Your task to perform on an android device: turn smart compose on in the gmail app Image 0: 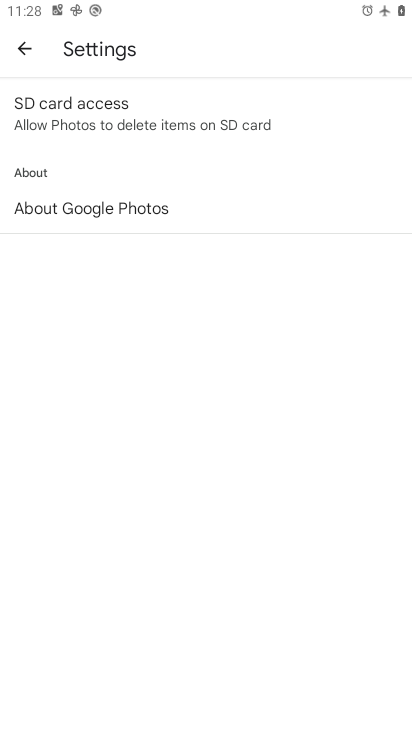
Step 0: press home button
Your task to perform on an android device: turn smart compose on in the gmail app Image 1: 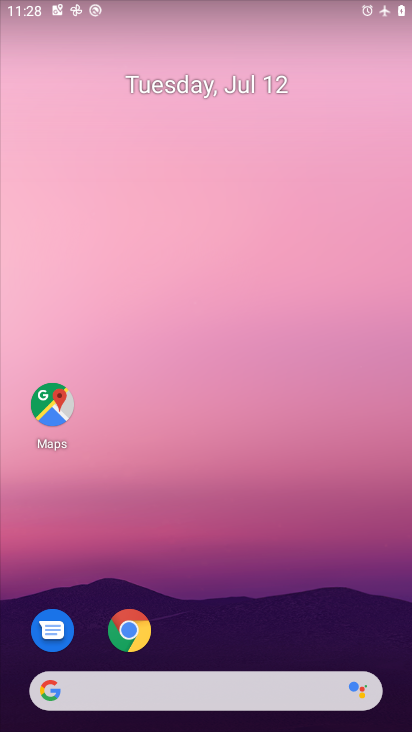
Step 1: drag from (281, 611) to (269, 131)
Your task to perform on an android device: turn smart compose on in the gmail app Image 2: 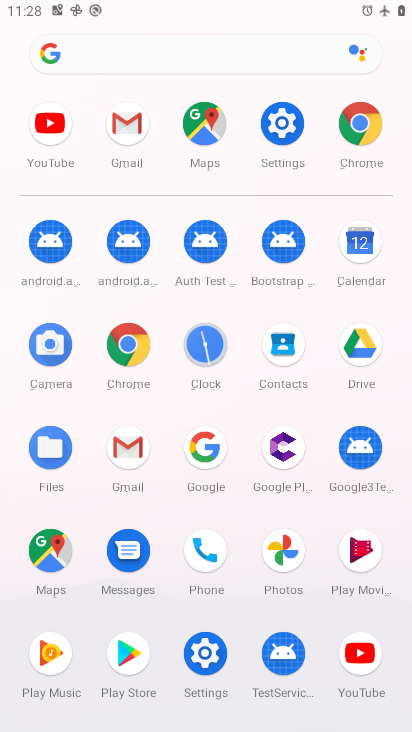
Step 2: click (128, 122)
Your task to perform on an android device: turn smart compose on in the gmail app Image 3: 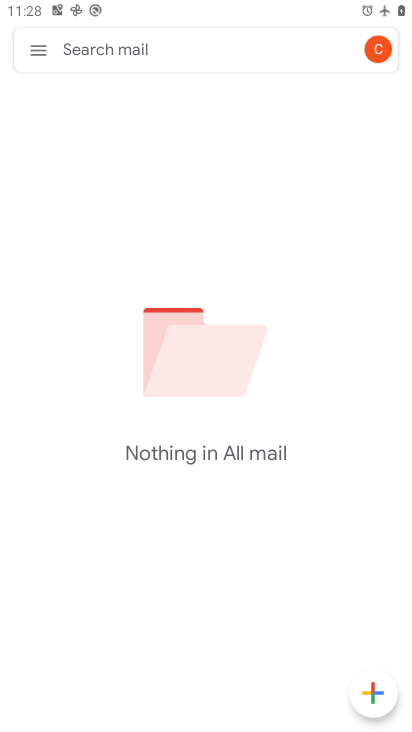
Step 3: click (36, 53)
Your task to perform on an android device: turn smart compose on in the gmail app Image 4: 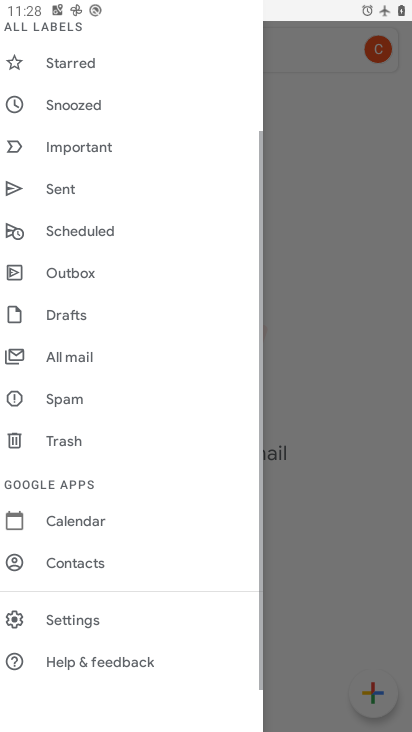
Step 4: click (43, 49)
Your task to perform on an android device: turn smart compose on in the gmail app Image 5: 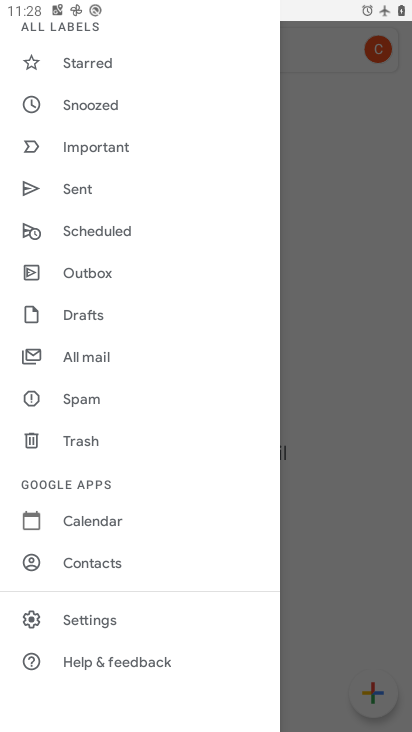
Step 5: click (85, 618)
Your task to perform on an android device: turn smart compose on in the gmail app Image 6: 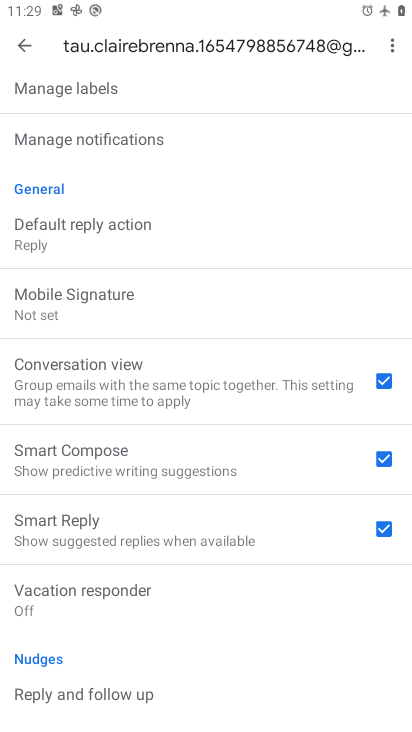
Step 6: task complete